Your task to perform on an android device: change timer sound Image 0: 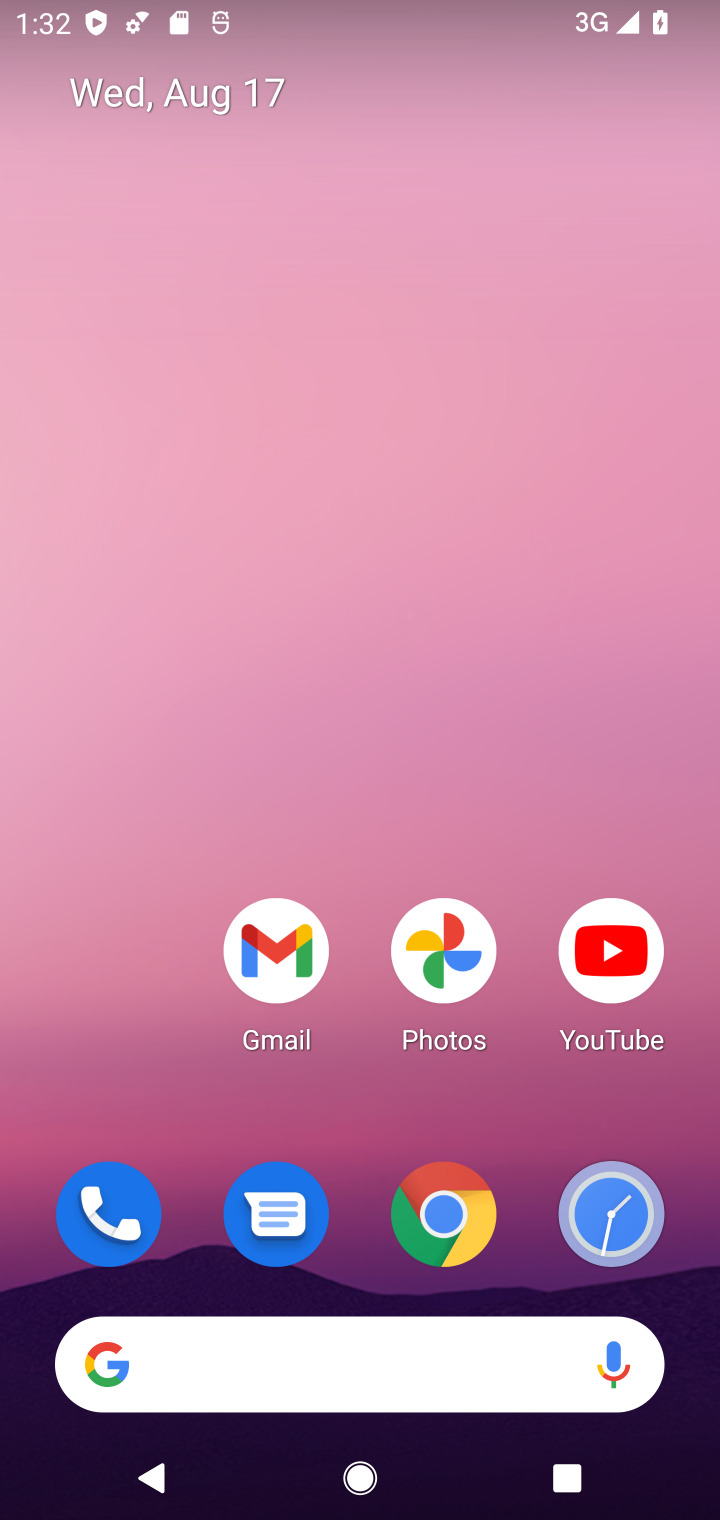
Step 0: click (615, 1212)
Your task to perform on an android device: change timer sound Image 1: 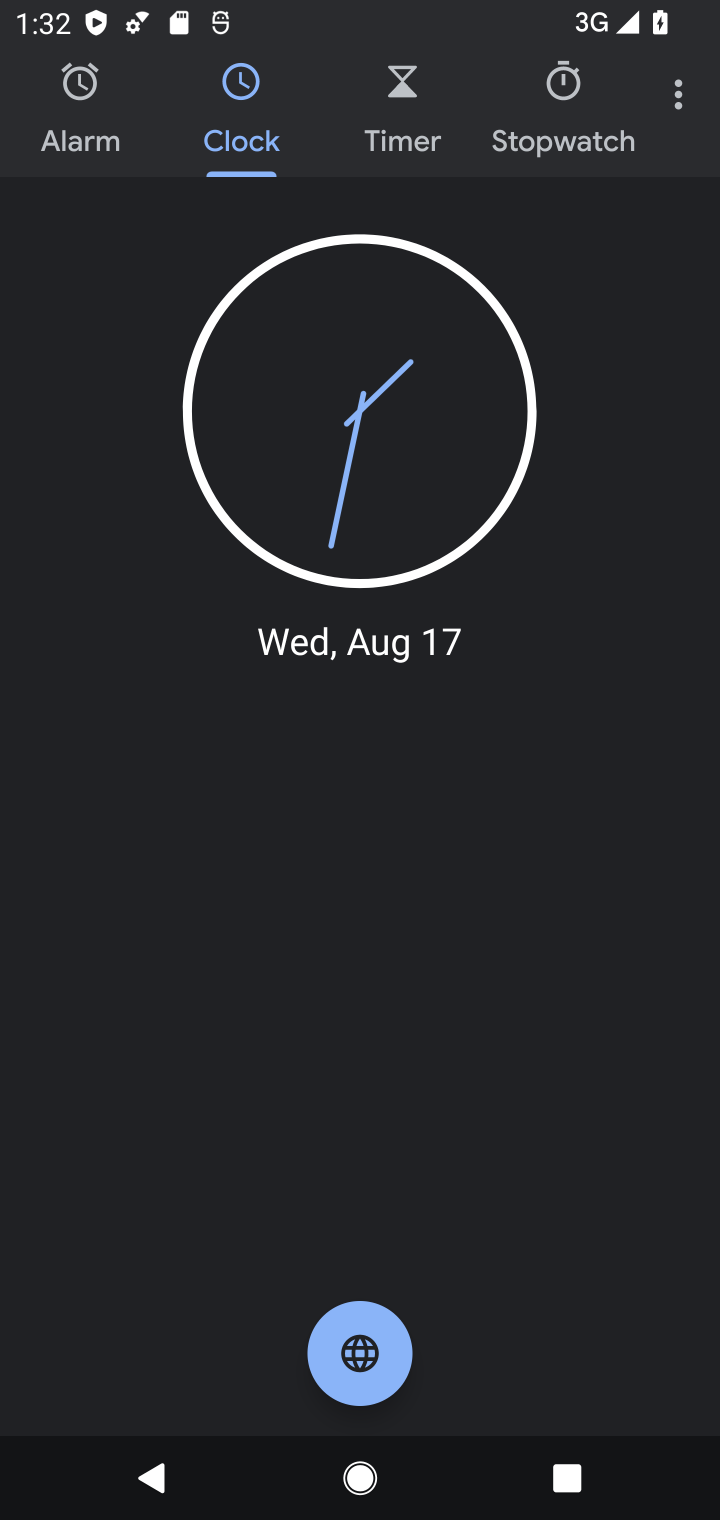
Step 1: click (678, 100)
Your task to perform on an android device: change timer sound Image 2: 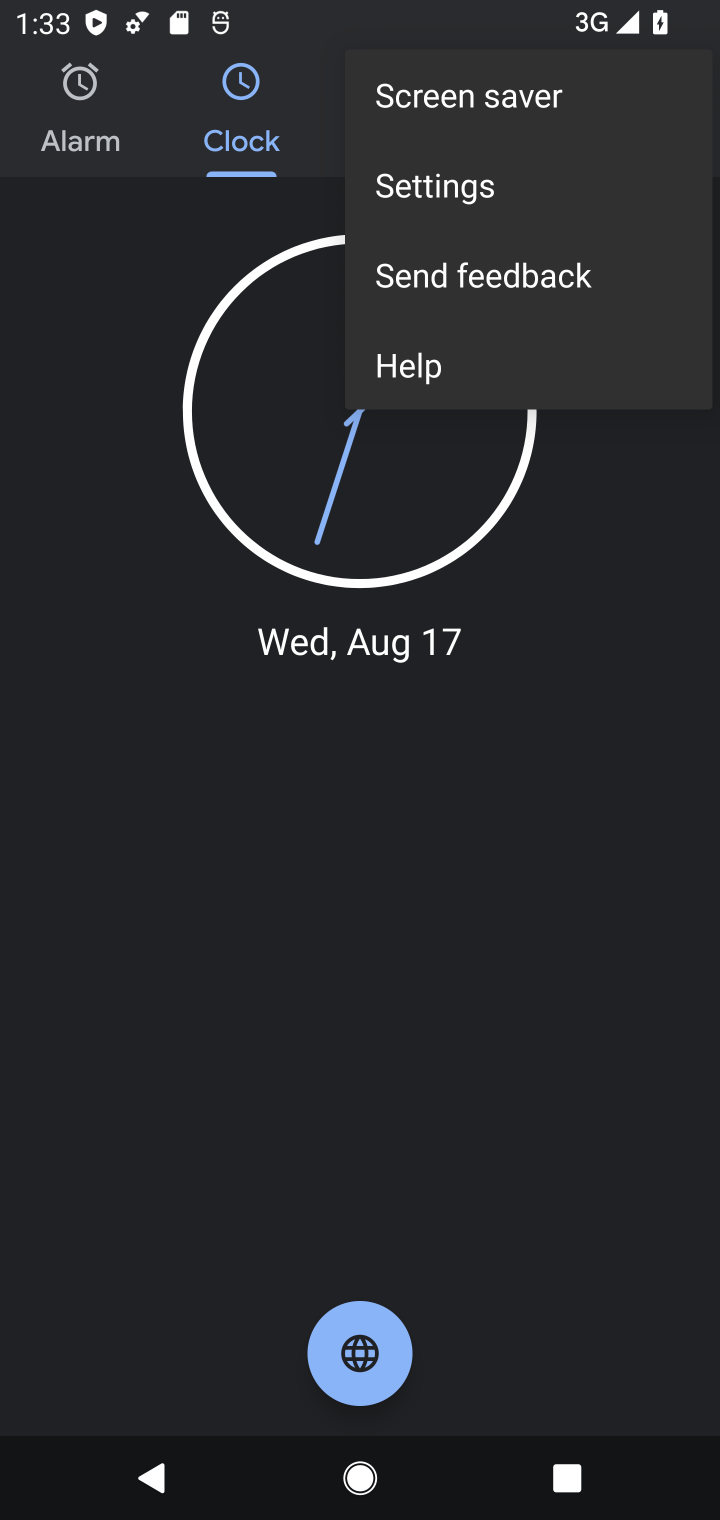
Step 2: click (433, 180)
Your task to perform on an android device: change timer sound Image 3: 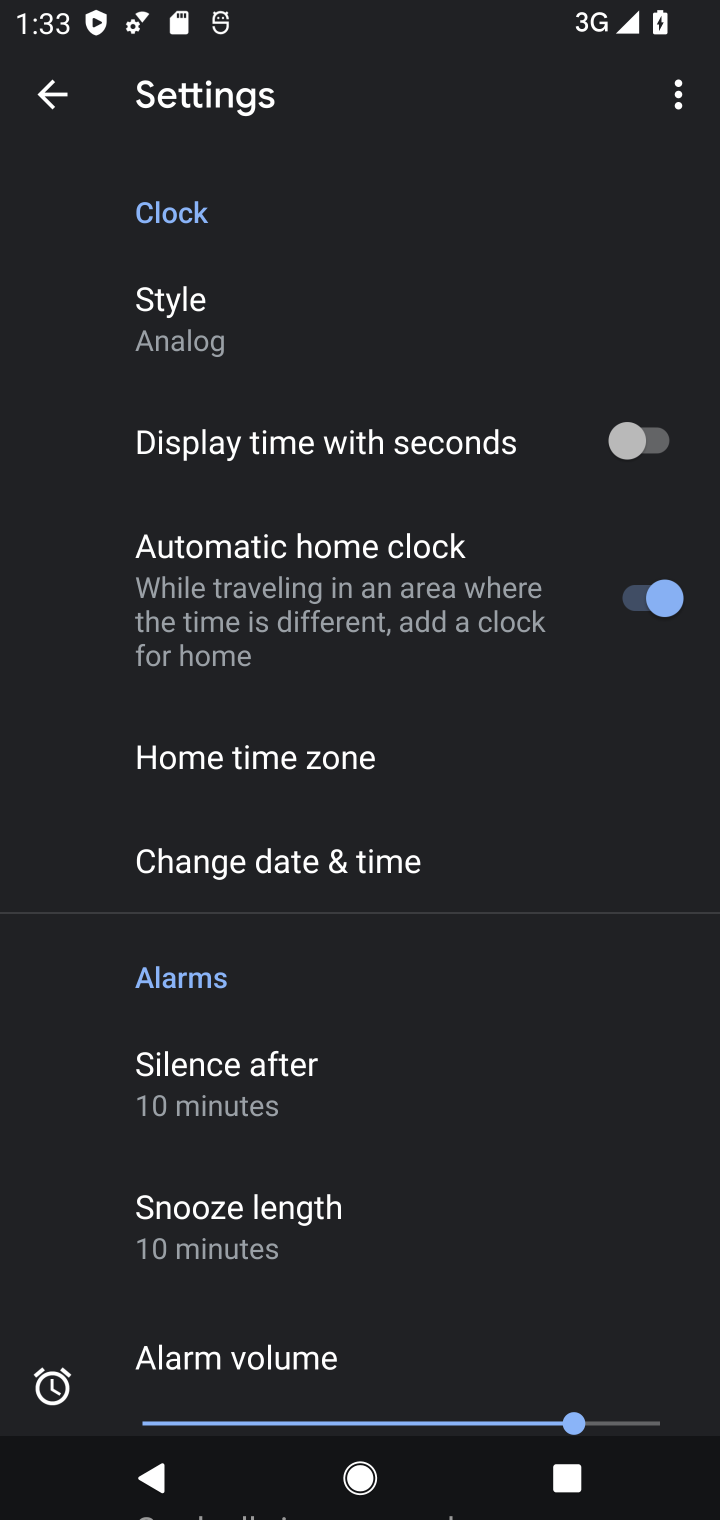
Step 3: drag from (435, 1278) to (425, 744)
Your task to perform on an android device: change timer sound Image 4: 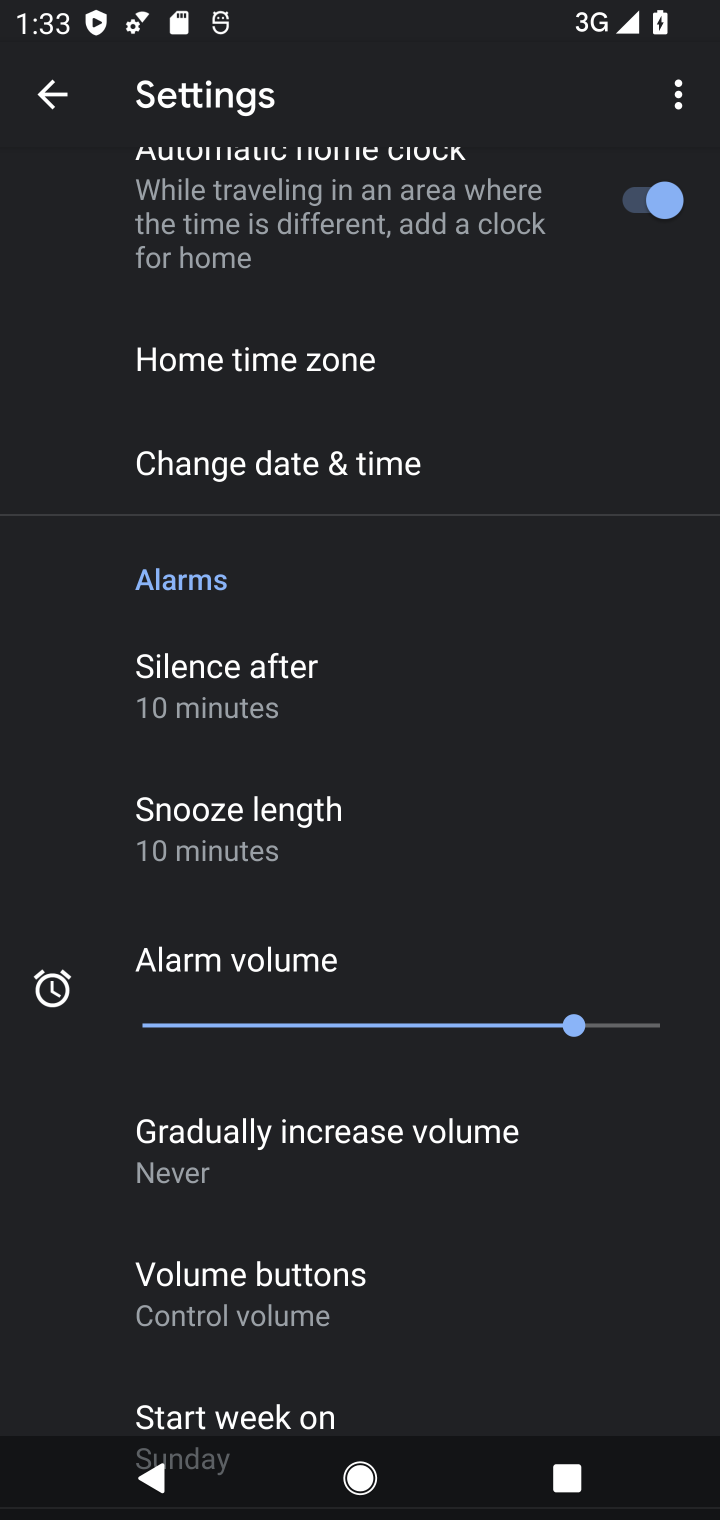
Step 4: drag from (417, 1340) to (417, 593)
Your task to perform on an android device: change timer sound Image 5: 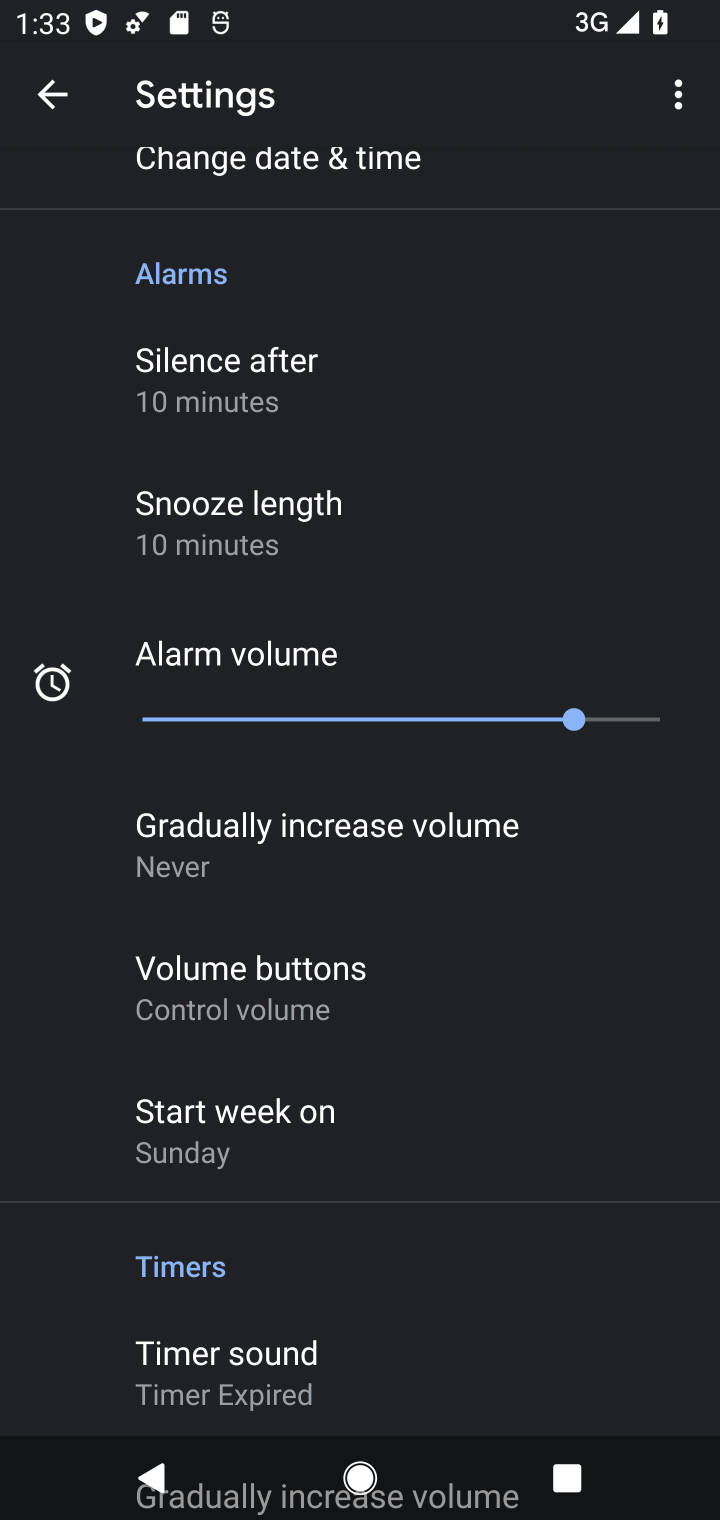
Step 5: click (234, 1361)
Your task to perform on an android device: change timer sound Image 6: 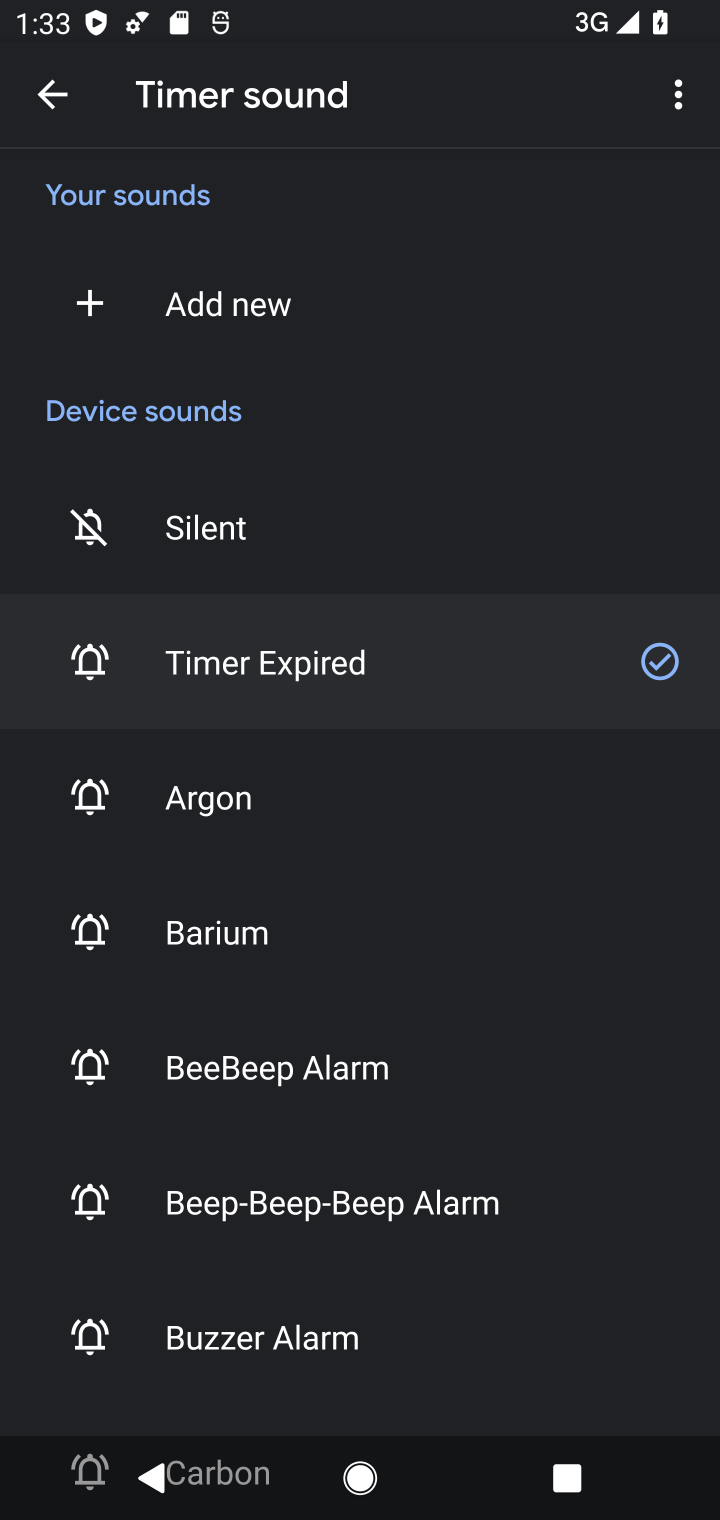
Step 6: click (202, 802)
Your task to perform on an android device: change timer sound Image 7: 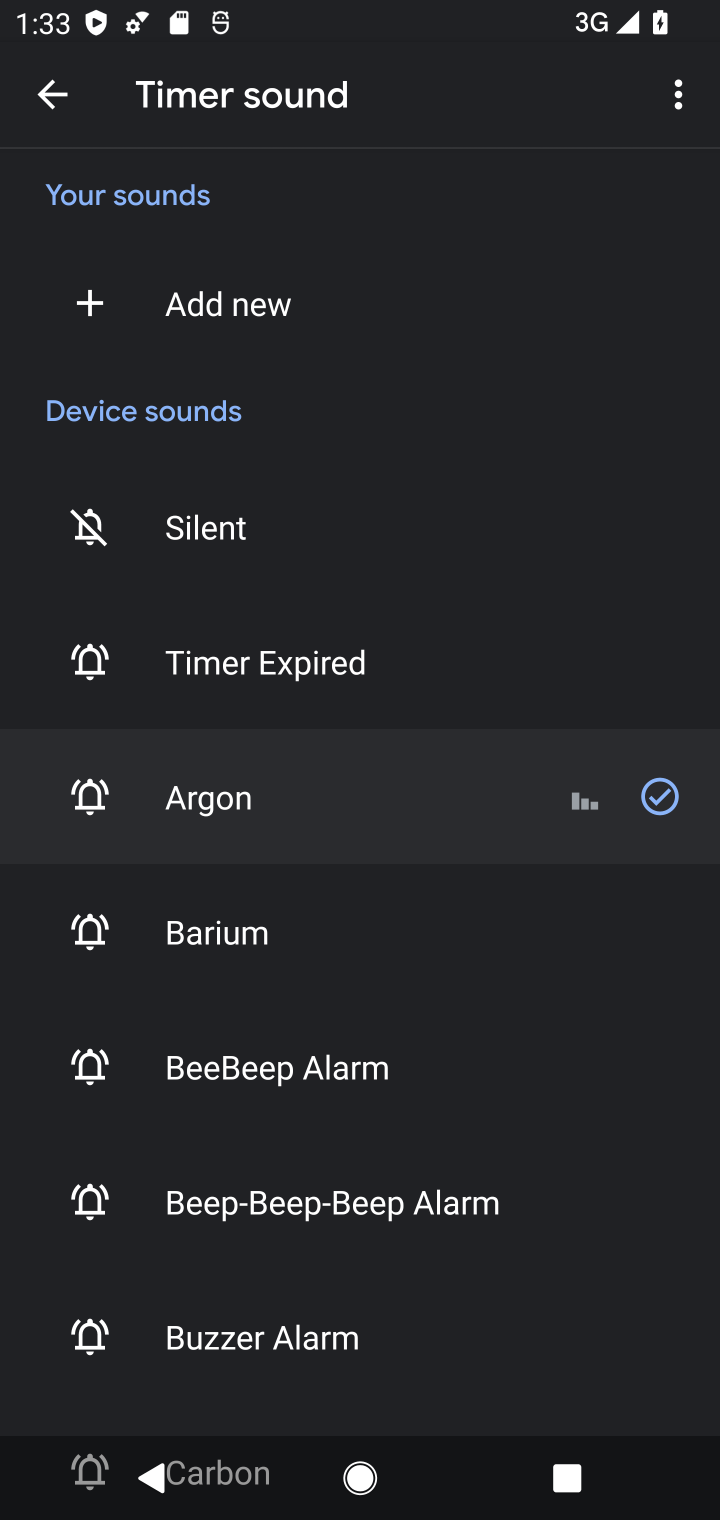
Step 7: task complete